Your task to perform on an android device: turn on javascript in the chrome app Image 0: 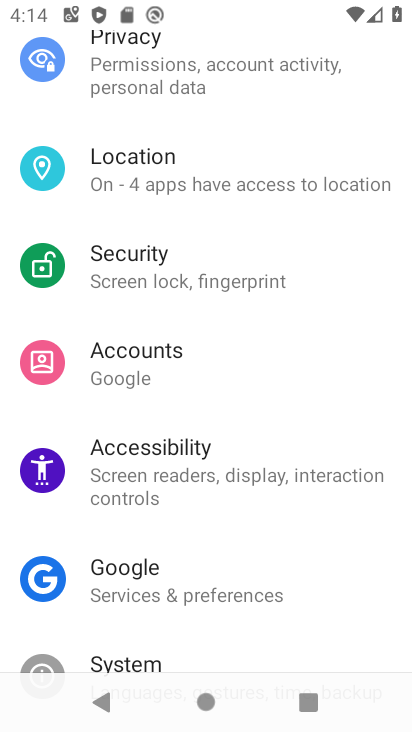
Step 0: press home button
Your task to perform on an android device: turn on javascript in the chrome app Image 1: 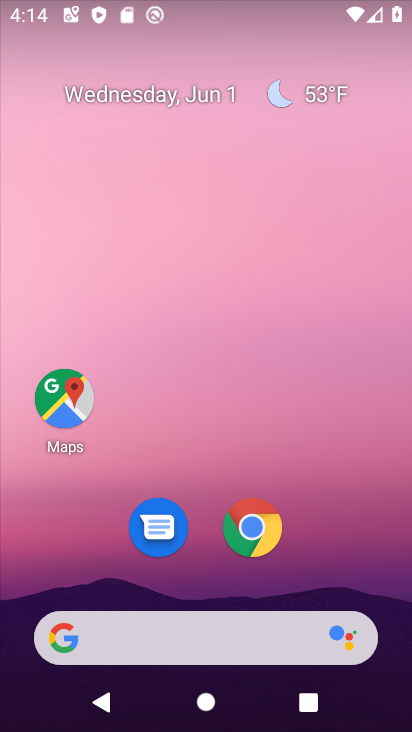
Step 1: click (255, 522)
Your task to perform on an android device: turn on javascript in the chrome app Image 2: 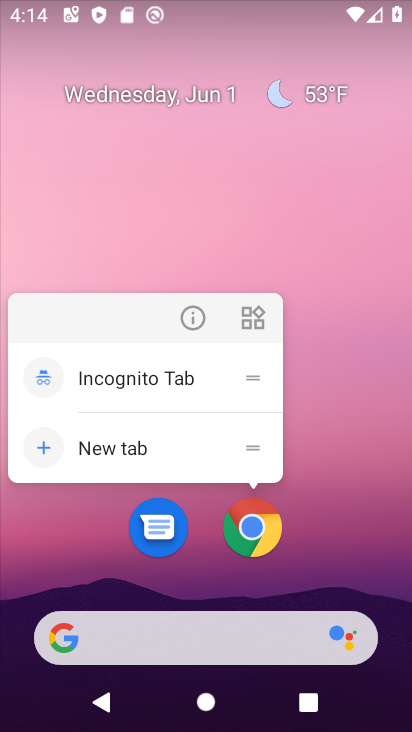
Step 2: drag from (367, 537) to (377, 41)
Your task to perform on an android device: turn on javascript in the chrome app Image 3: 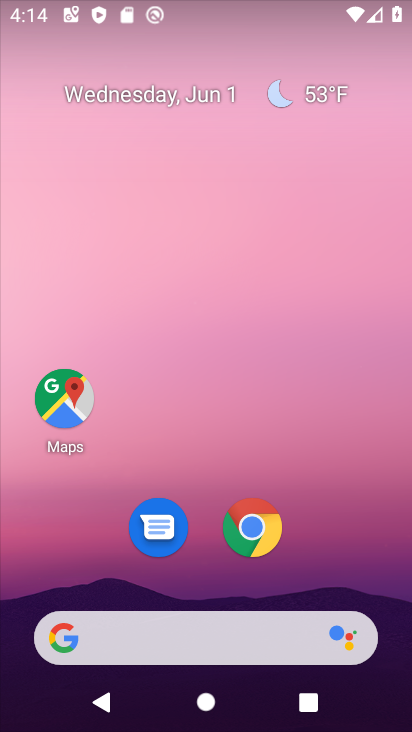
Step 3: drag from (358, 560) to (365, 51)
Your task to perform on an android device: turn on javascript in the chrome app Image 4: 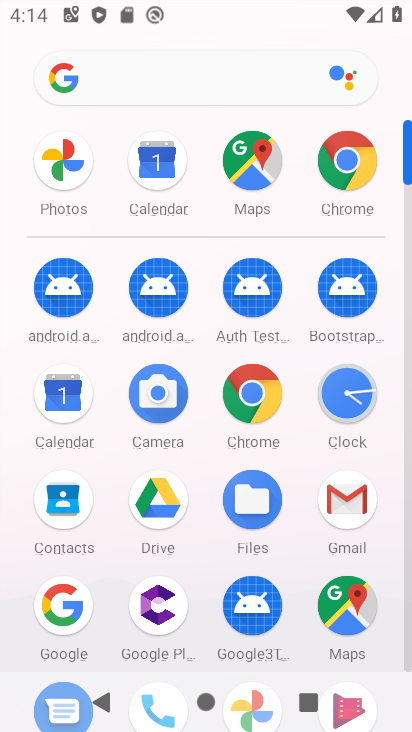
Step 4: click (250, 402)
Your task to perform on an android device: turn on javascript in the chrome app Image 5: 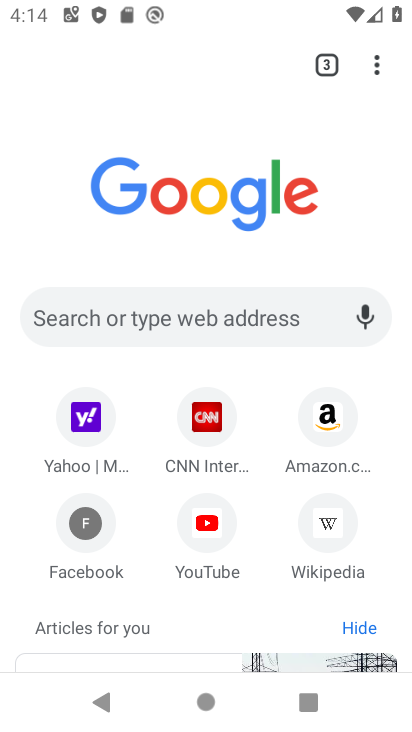
Step 5: drag from (373, 69) to (151, 558)
Your task to perform on an android device: turn on javascript in the chrome app Image 6: 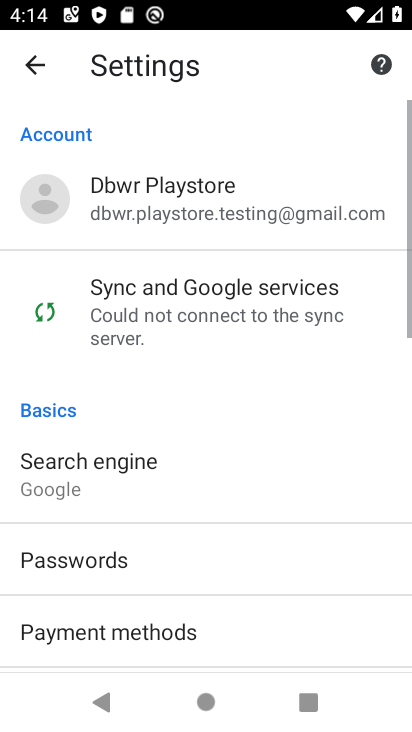
Step 6: drag from (315, 628) to (337, 157)
Your task to perform on an android device: turn on javascript in the chrome app Image 7: 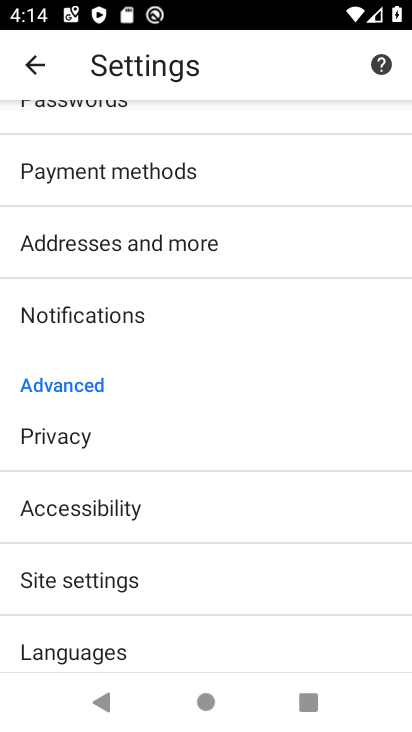
Step 7: click (82, 570)
Your task to perform on an android device: turn on javascript in the chrome app Image 8: 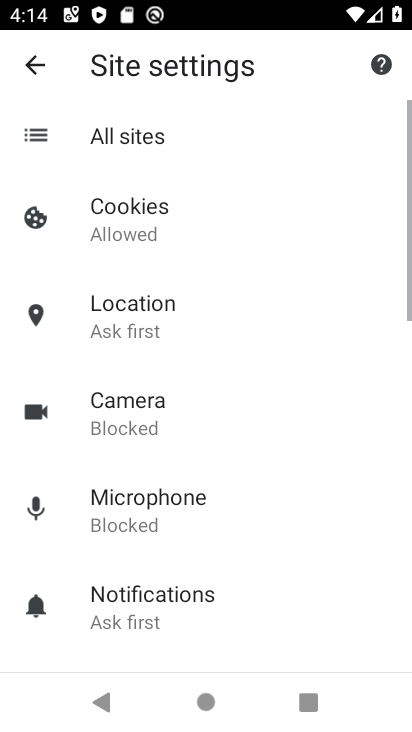
Step 8: drag from (241, 596) to (278, 278)
Your task to perform on an android device: turn on javascript in the chrome app Image 9: 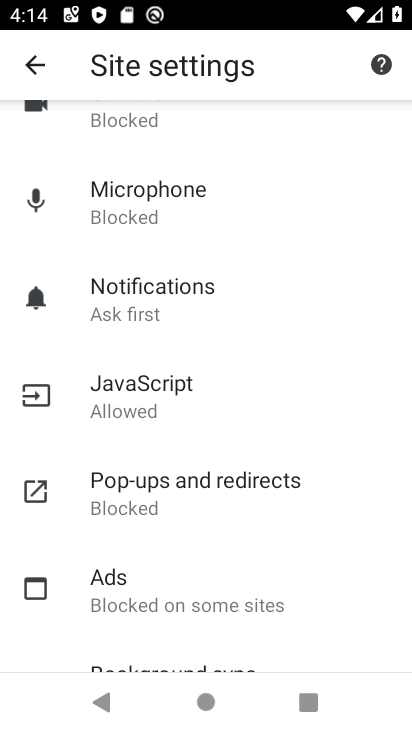
Step 9: click (136, 393)
Your task to perform on an android device: turn on javascript in the chrome app Image 10: 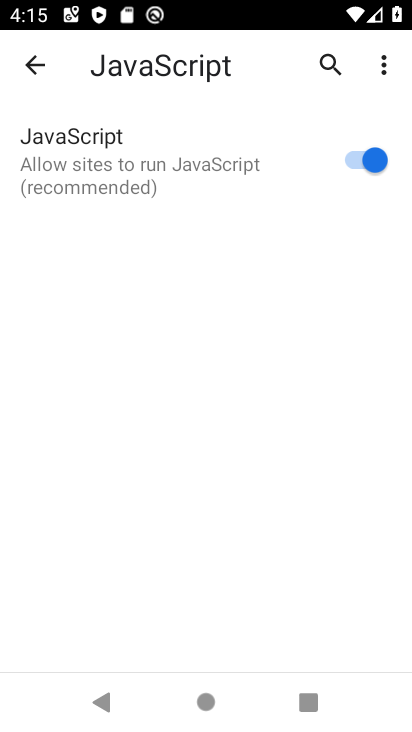
Step 10: task complete